Your task to perform on an android device: Go to accessibility settings Image 0: 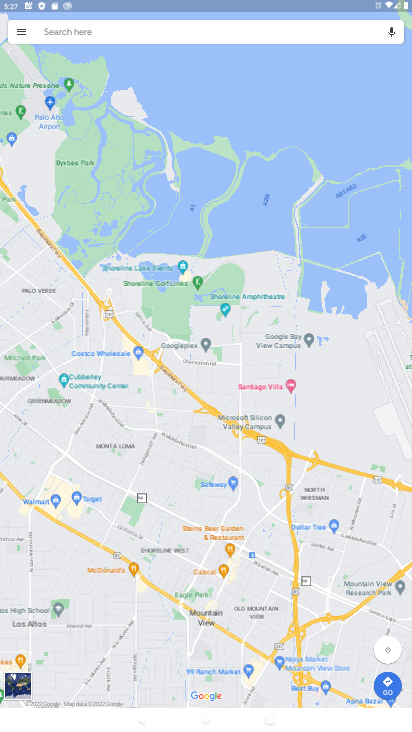
Step 0: press home button
Your task to perform on an android device: Go to accessibility settings Image 1: 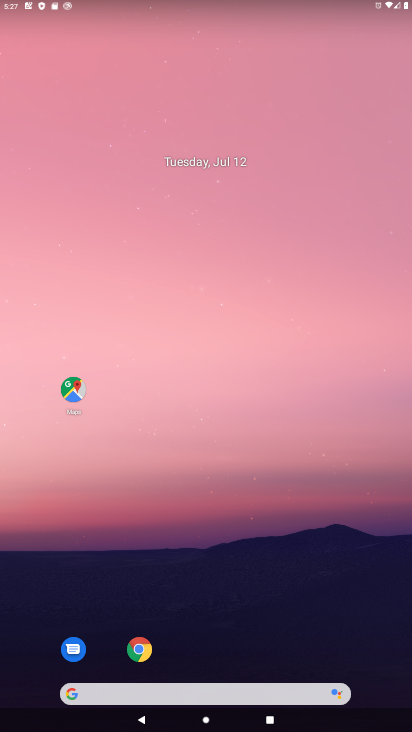
Step 1: drag from (200, 692) to (232, 75)
Your task to perform on an android device: Go to accessibility settings Image 2: 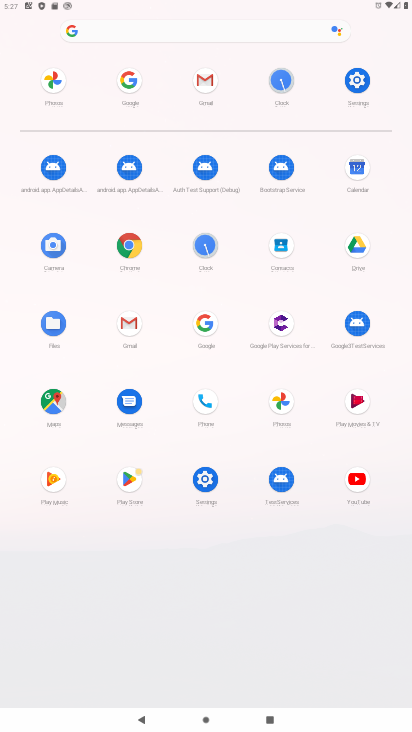
Step 2: click (204, 480)
Your task to perform on an android device: Go to accessibility settings Image 3: 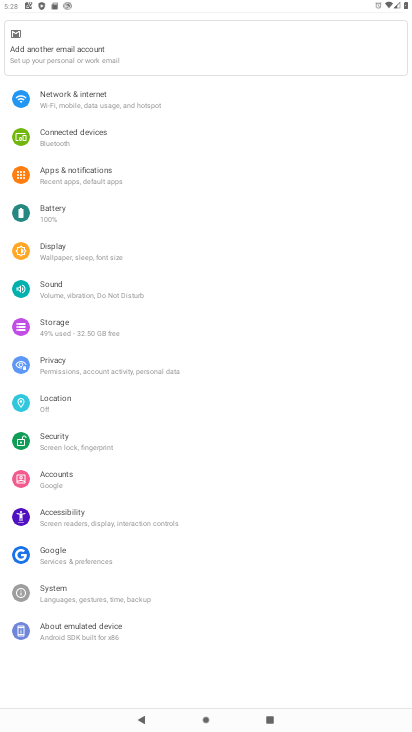
Step 3: click (62, 514)
Your task to perform on an android device: Go to accessibility settings Image 4: 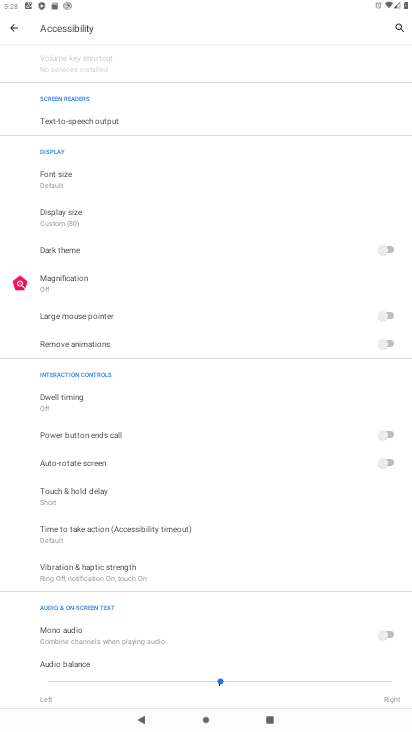
Step 4: task complete